Your task to perform on an android device: Open Chrome and go to the settings page Image 0: 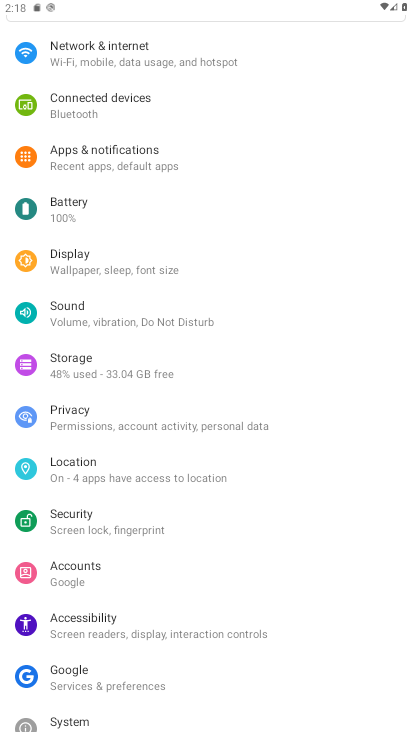
Step 0: press home button
Your task to perform on an android device: Open Chrome and go to the settings page Image 1: 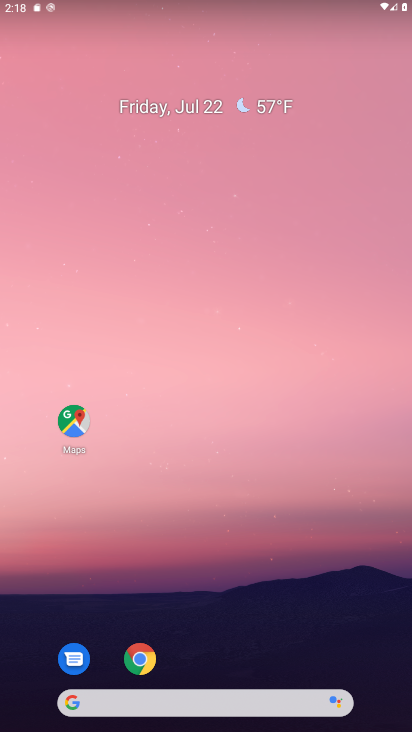
Step 1: drag from (314, 655) to (252, 386)
Your task to perform on an android device: Open Chrome and go to the settings page Image 2: 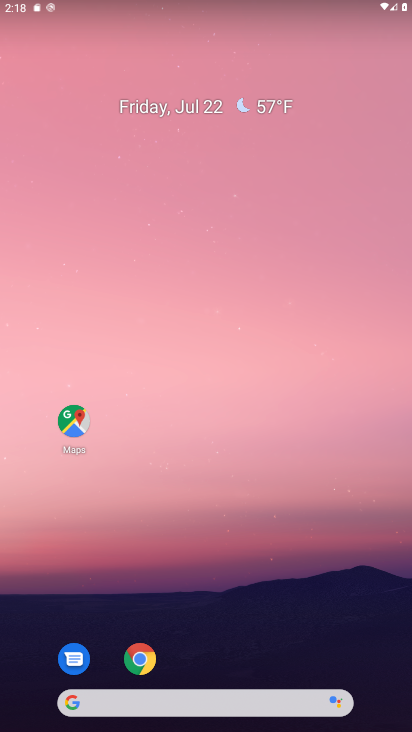
Step 2: click (137, 660)
Your task to perform on an android device: Open Chrome and go to the settings page Image 3: 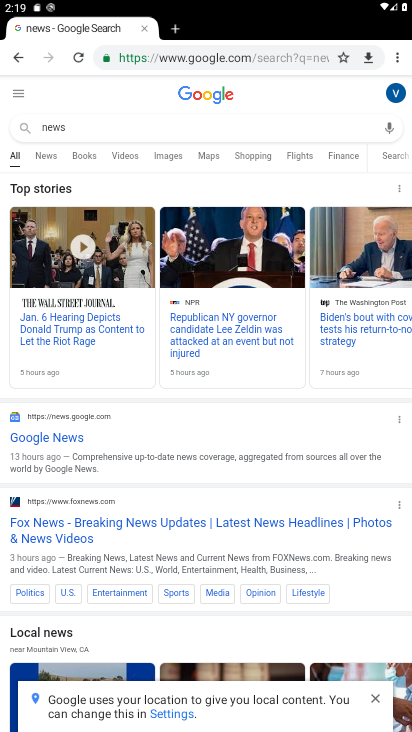
Step 3: click (396, 49)
Your task to perform on an android device: Open Chrome and go to the settings page Image 4: 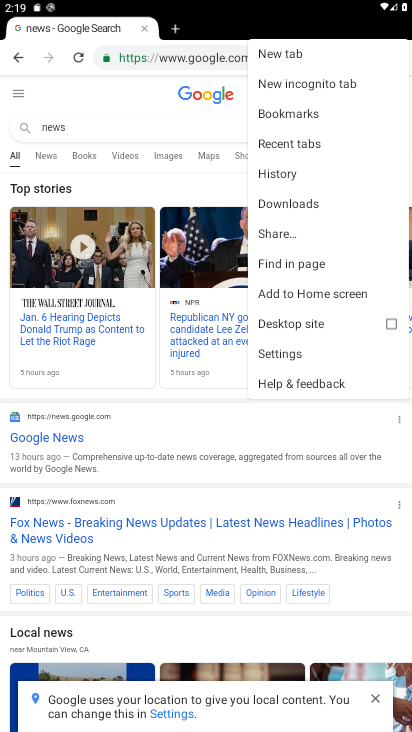
Step 4: click (325, 348)
Your task to perform on an android device: Open Chrome and go to the settings page Image 5: 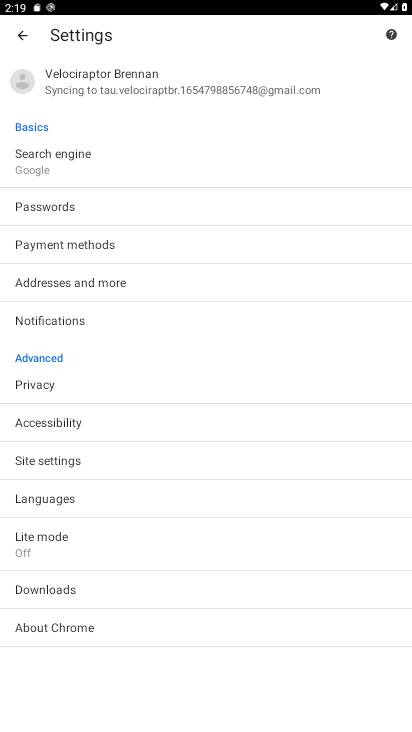
Step 5: task complete